Your task to perform on an android device: What's the weather going to be tomorrow? Image 0: 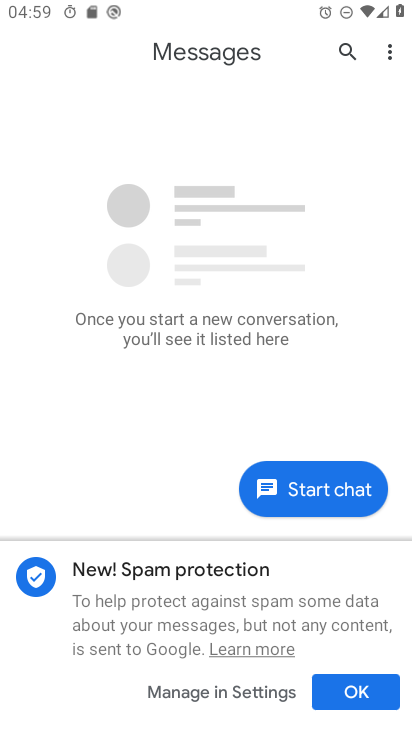
Step 0: press home button
Your task to perform on an android device: What's the weather going to be tomorrow? Image 1: 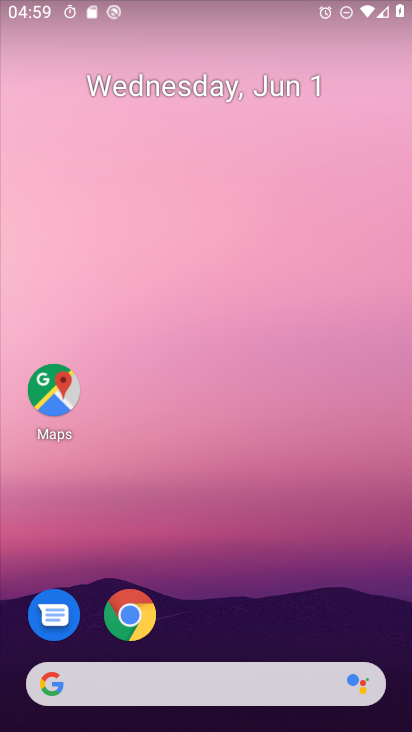
Step 1: drag from (223, 672) to (163, 639)
Your task to perform on an android device: What's the weather going to be tomorrow? Image 2: 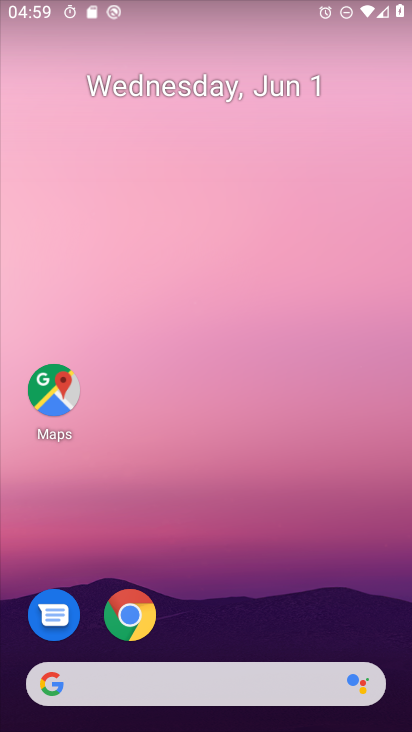
Step 2: drag from (57, 218) to (362, 241)
Your task to perform on an android device: What's the weather going to be tomorrow? Image 3: 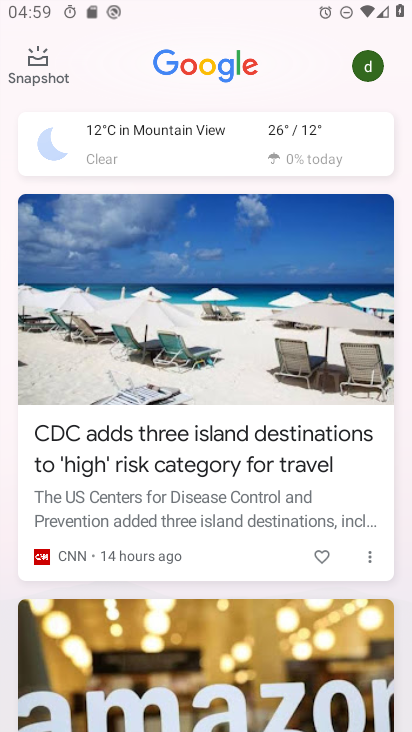
Step 3: click (211, 145)
Your task to perform on an android device: What's the weather going to be tomorrow? Image 4: 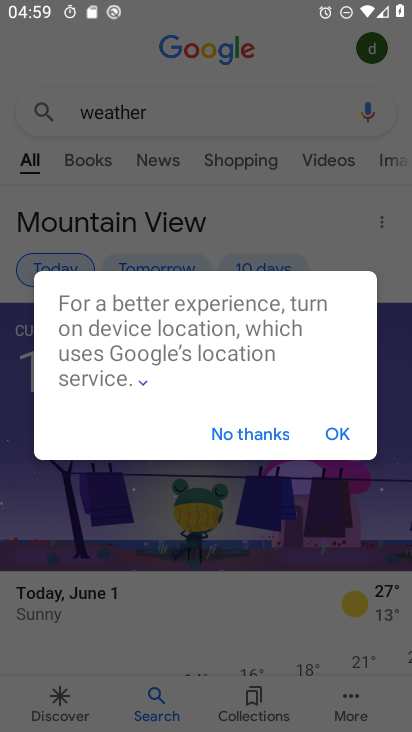
Step 4: click (258, 436)
Your task to perform on an android device: What's the weather going to be tomorrow? Image 5: 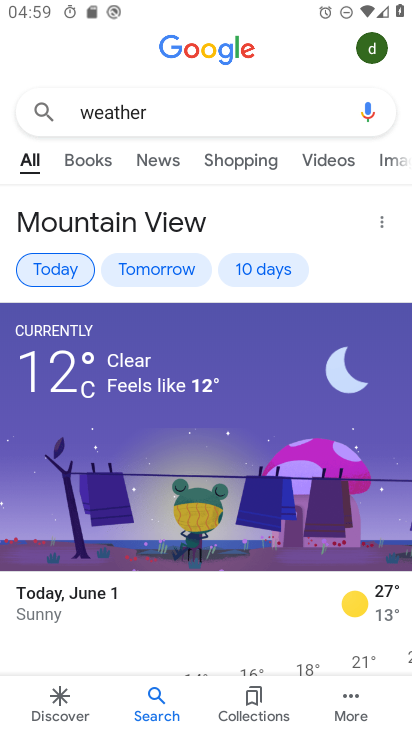
Step 5: click (170, 267)
Your task to perform on an android device: What's the weather going to be tomorrow? Image 6: 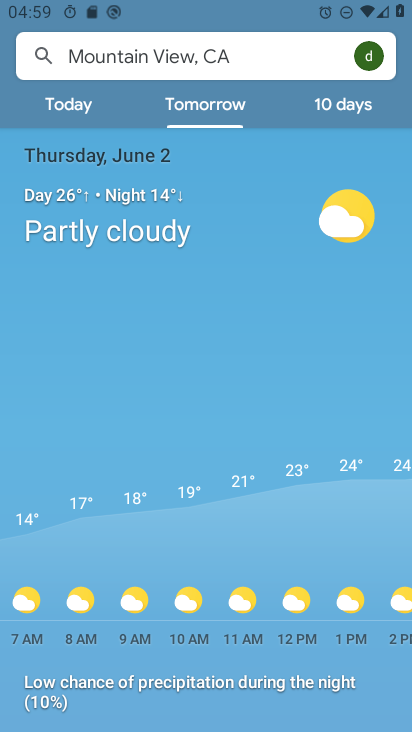
Step 6: task complete